Your task to perform on an android device: Open calendar and show me the third week of next month Image 0: 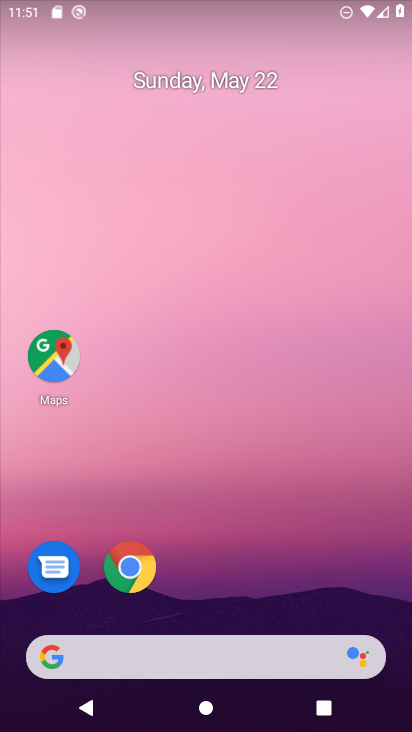
Step 0: click (177, 79)
Your task to perform on an android device: Open calendar and show me the third week of next month Image 1: 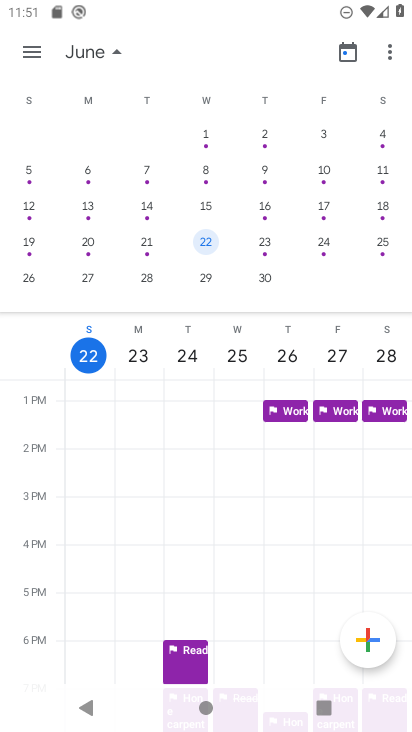
Step 1: click (208, 203)
Your task to perform on an android device: Open calendar and show me the third week of next month Image 2: 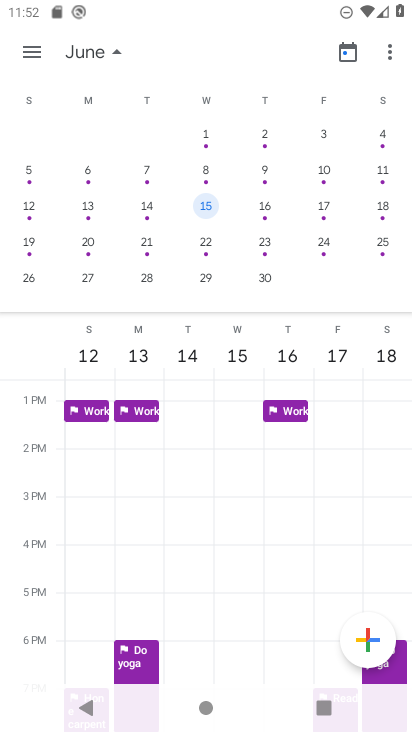
Step 2: task complete